Your task to perform on an android device: Search for Italian restaurants on Maps Image 0: 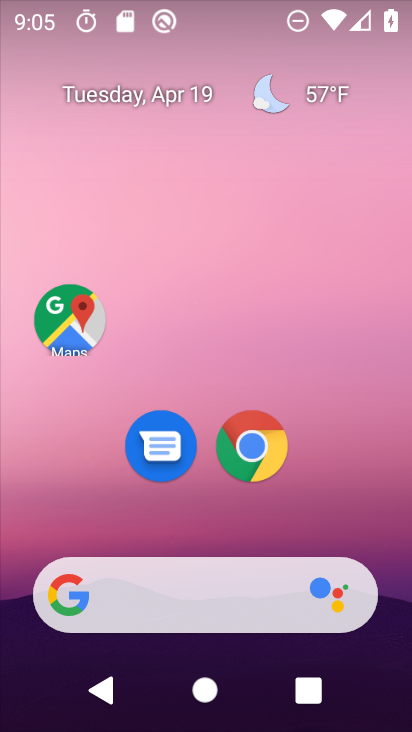
Step 0: click (69, 323)
Your task to perform on an android device: Search for Italian restaurants on Maps Image 1: 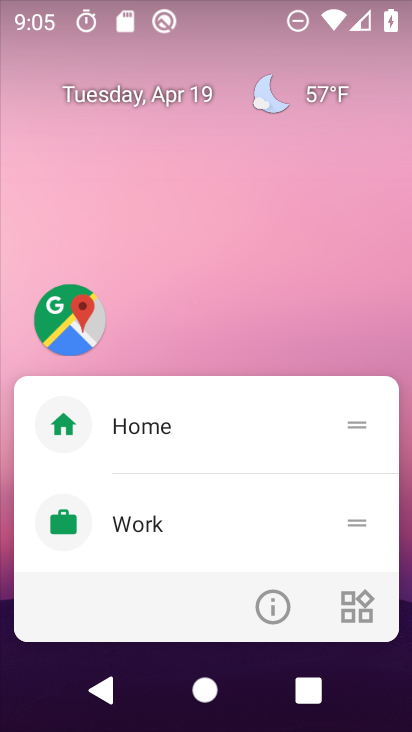
Step 1: click (85, 340)
Your task to perform on an android device: Search for Italian restaurants on Maps Image 2: 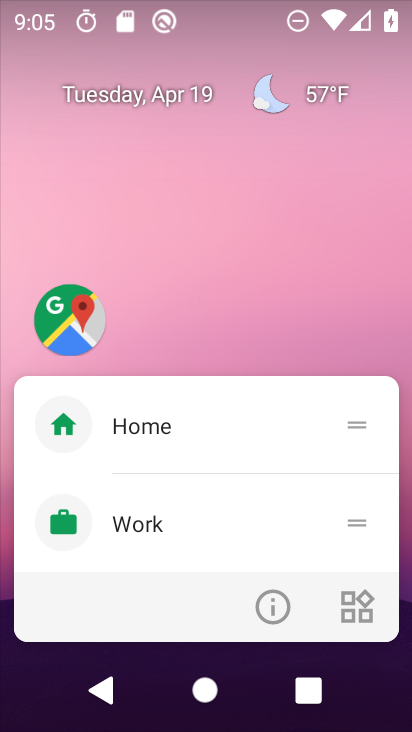
Step 2: click (75, 322)
Your task to perform on an android device: Search for Italian restaurants on Maps Image 3: 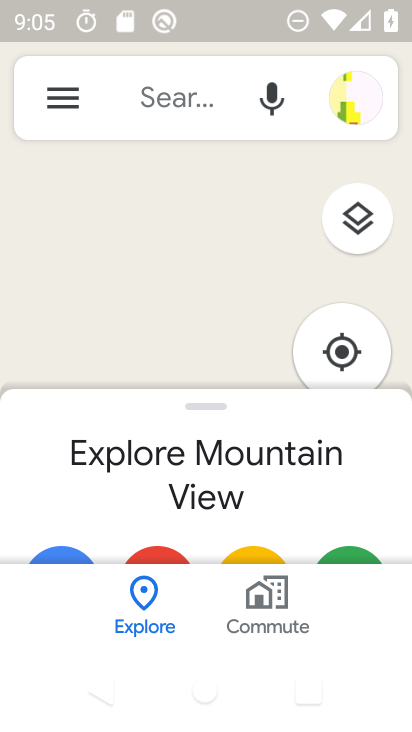
Step 3: click (196, 105)
Your task to perform on an android device: Search for Italian restaurants on Maps Image 4: 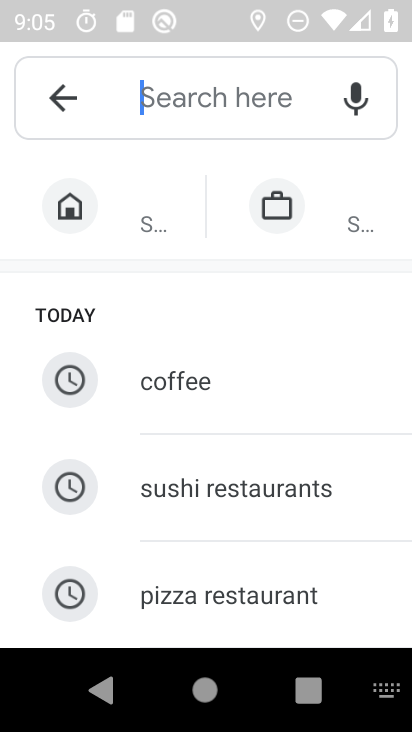
Step 4: drag from (178, 595) to (150, 235)
Your task to perform on an android device: Search for Italian restaurants on Maps Image 5: 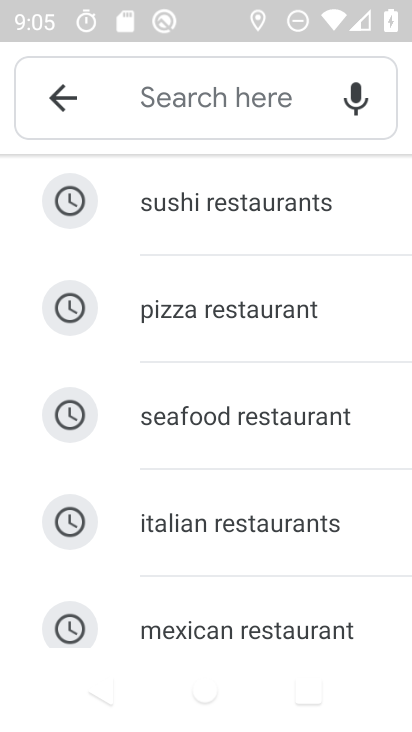
Step 5: click (165, 519)
Your task to perform on an android device: Search for Italian restaurants on Maps Image 6: 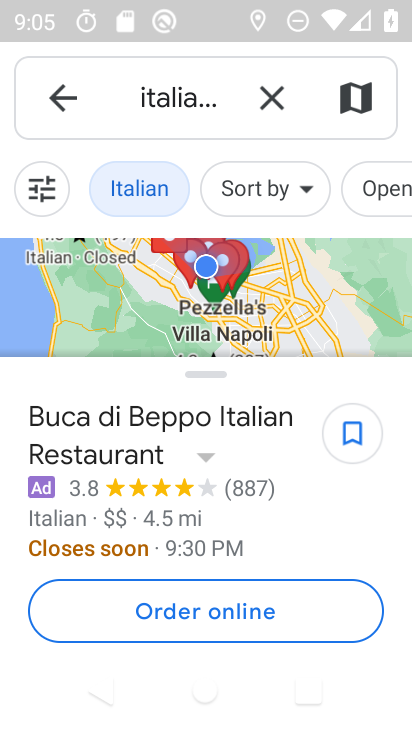
Step 6: task complete